Your task to perform on an android device: What is the news today? Image 0: 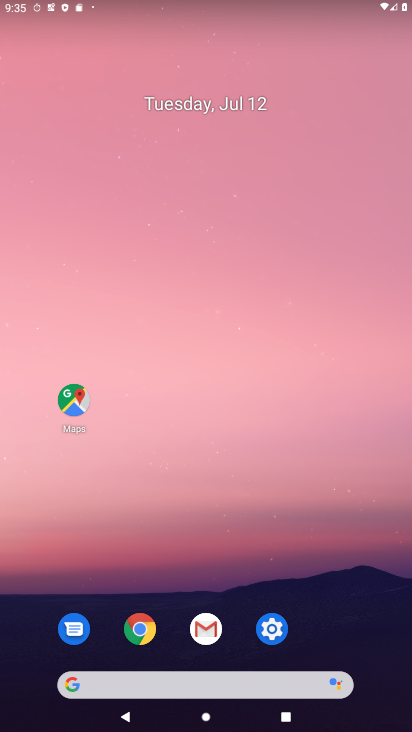
Step 0: click (225, 679)
Your task to perform on an android device: What is the news today? Image 1: 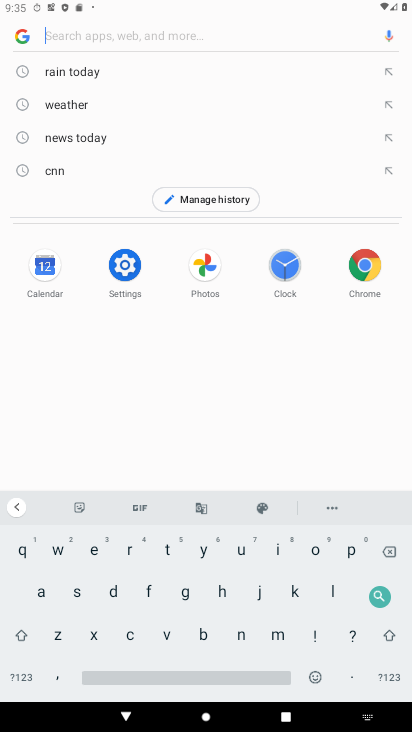
Step 1: click (90, 144)
Your task to perform on an android device: What is the news today? Image 2: 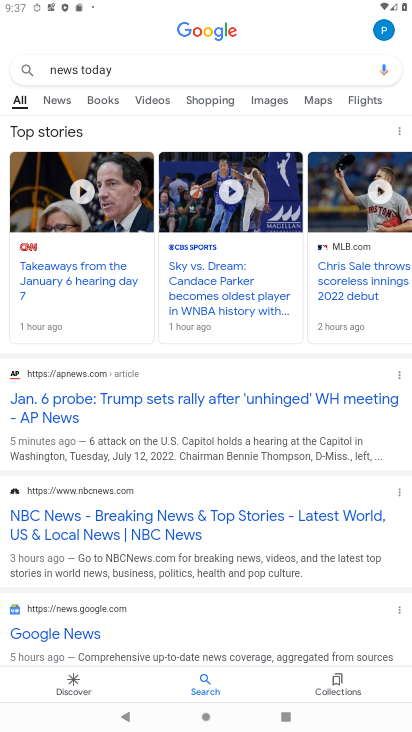
Step 2: task complete